Your task to perform on an android device: delete browsing data in the chrome app Image 0: 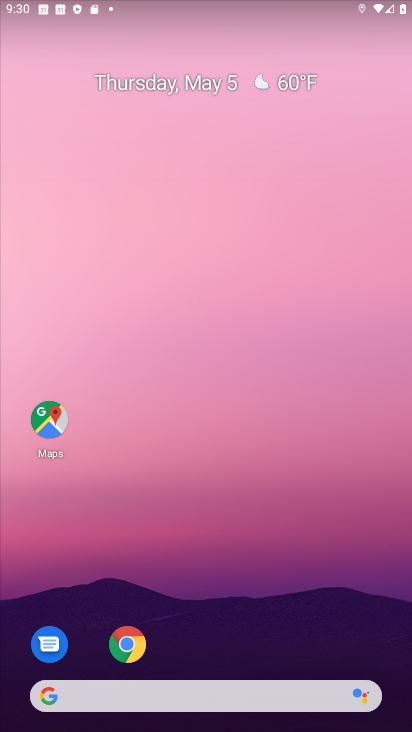
Step 0: drag from (182, 646) to (199, 249)
Your task to perform on an android device: delete browsing data in the chrome app Image 1: 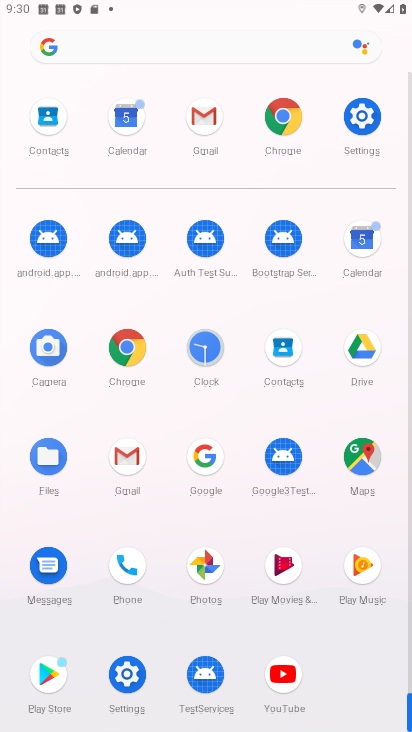
Step 1: click (284, 120)
Your task to perform on an android device: delete browsing data in the chrome app Image 2: 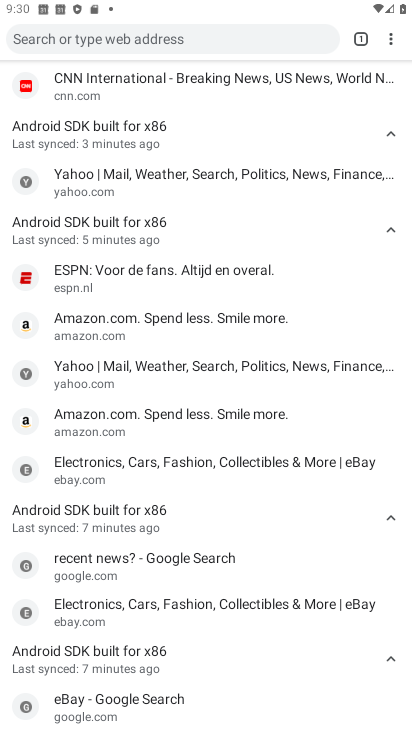
Step 2: drag from (391, 42) to (285, 219)
Your task to perform on an android device: delete browsing data in the chrome app Image 3: 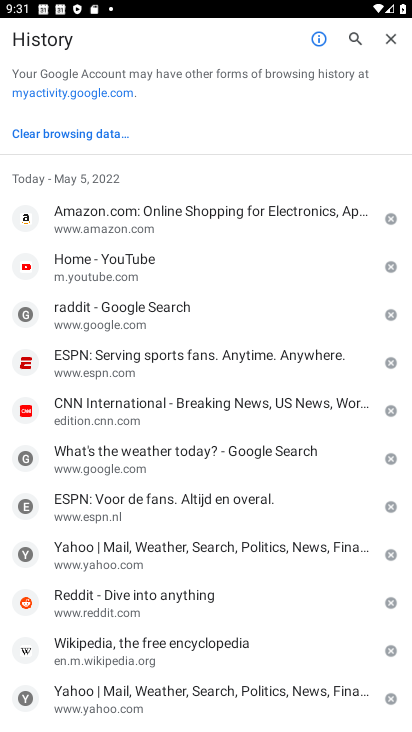
Step 3: click (64, 144)
Your task to perform on an android device: delete browsing data in the chrome app Image 4: 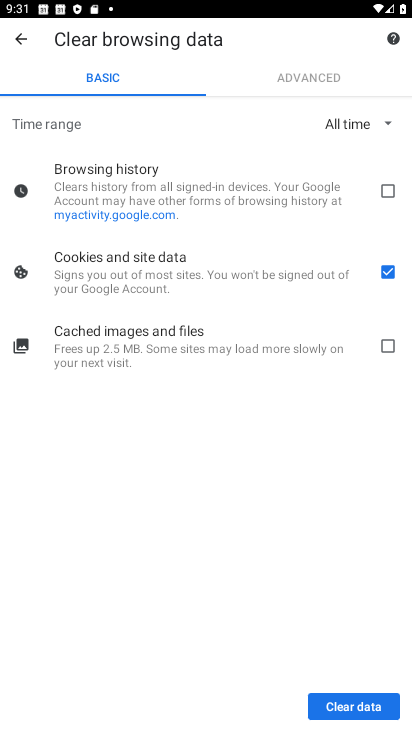
Step 4: click (382, 201)
Your task to perform on an android device: delete browsing data in the chrome app Image 5: 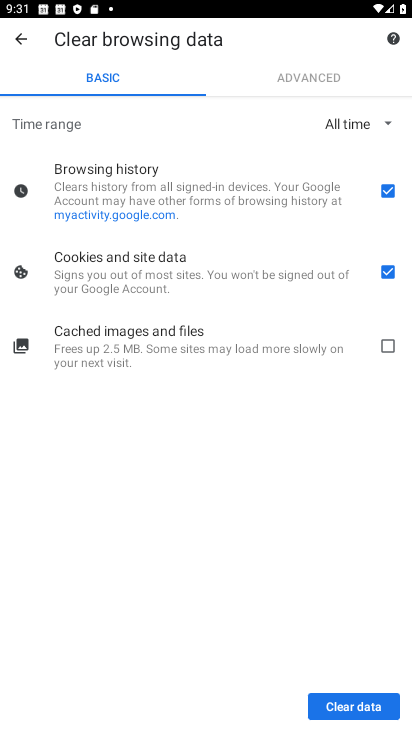
Step 5: click (378, 340)
Your task to perform on an android device: delete browsing data in the chrome app Image 6: 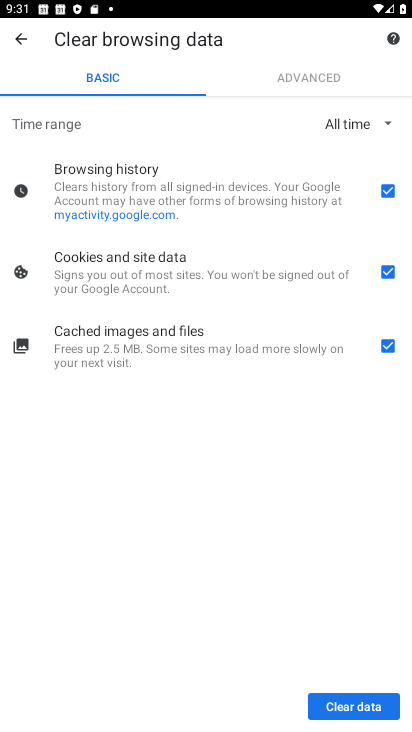
Step 6: click (340, 707)
Your task to perform on an android device: delete browsing data in the chrome app Image 7: 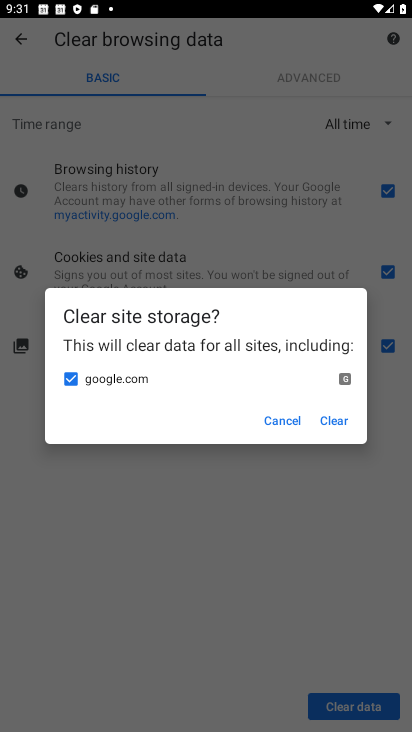
Step 7: click (337, 425)
Your task to perform on an android device: delete browsing data in the chrome app Image 8: 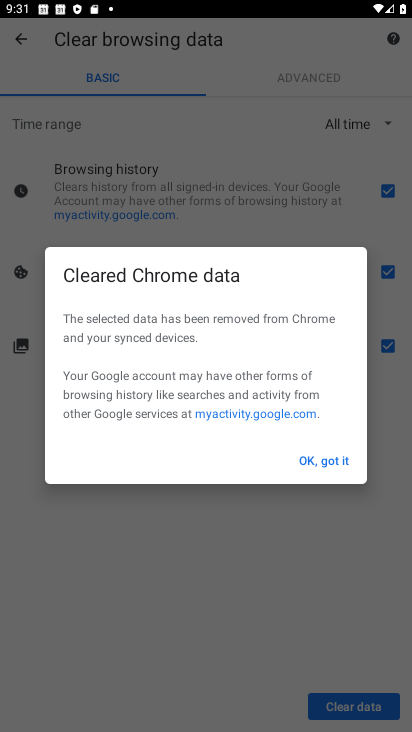
Step 8: click (344, 457)
Your task to perform on an android device: delete browsing data in the chrome app Image 9: 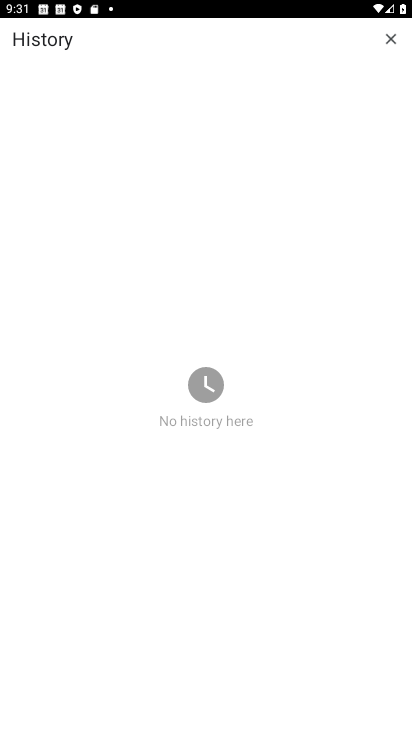
Step 9: task complete